Your task to perform on an android device: Open accessibility settings Image 0: 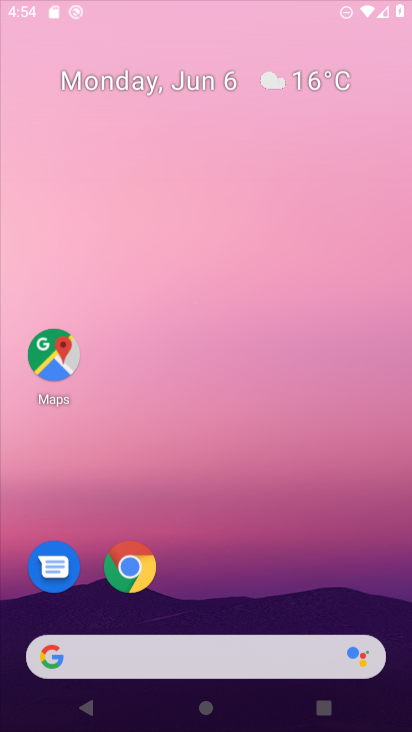
Step 0: drag from (211, 426) to (162, 197)
Your task to perform on an android device: Open accessibility settings Image 1: 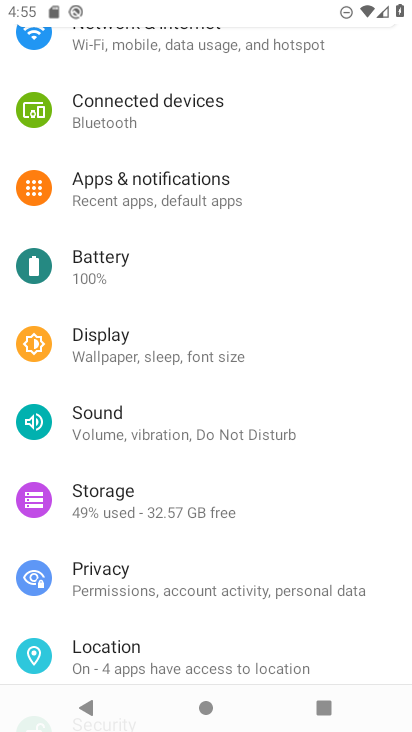
Step 1: drag from (163, 587) to (112, 101)
Your task to perform on an android device: Open accessibility settings Image 2: 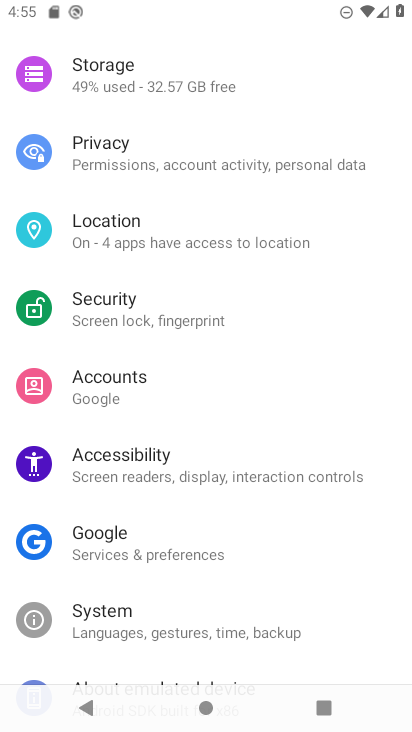
Step 2: drag from (171, 466) to (145, 52)
Your task to perform on an android device: Open accessibility settings Image 3: 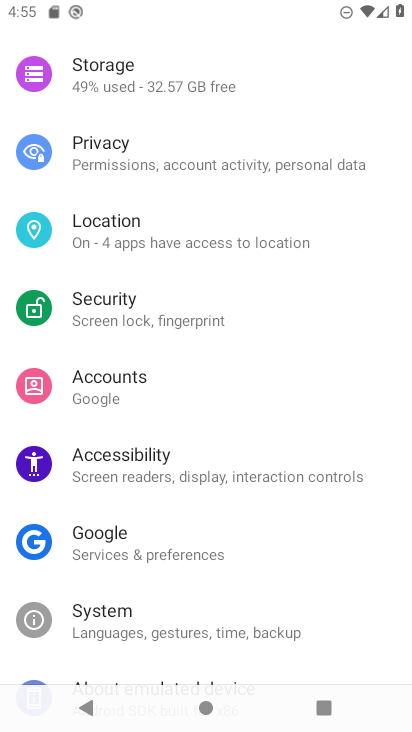
Step 3: click (189, 127)
Your task to perform on an android device: Open accessibility settings Image 4: 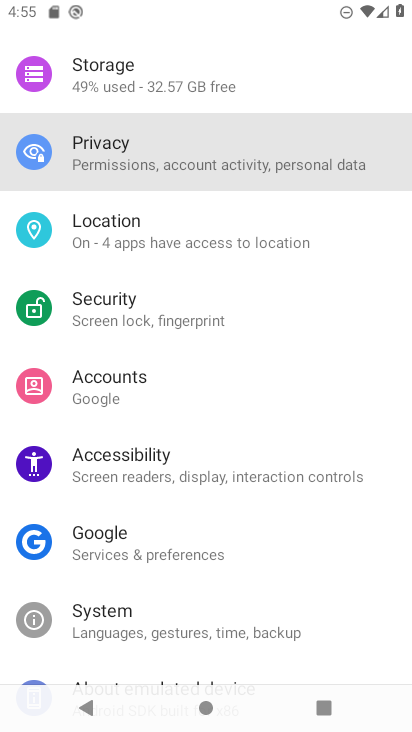
Step 4: click (137, 459)
Your task to perform on an android device: Open accessibility settings Image 5: 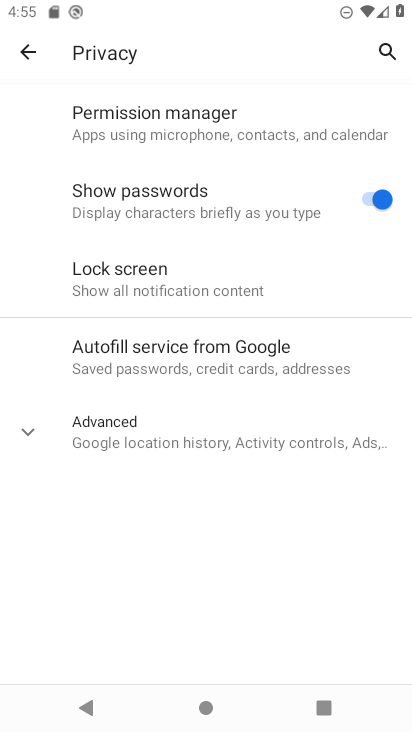
Step 5: click (22, 53)
Your task to perform on an android device: Open accessibility settings Image 6: 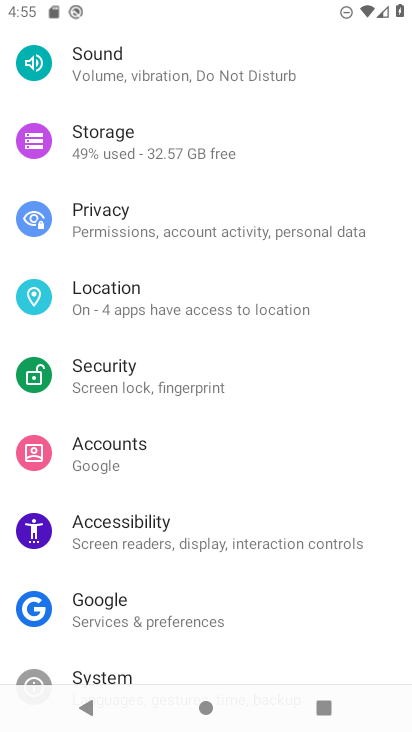
Step 6: click (132, 556)
Your task to perform on an android device: Open accessibility settings Image 7: 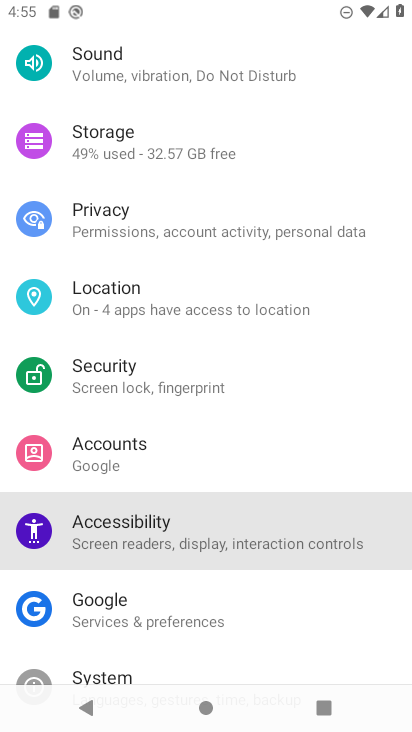
Step 7: click (143, 524)
Your task to perform on an android device: Open accessibility settings Image 8: 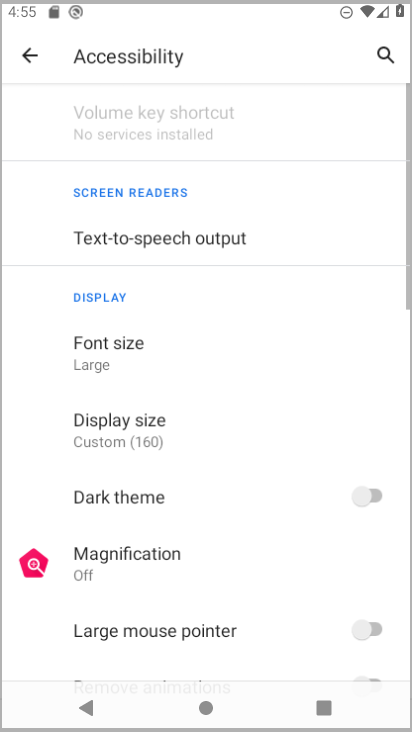
Step 8: click (149, 530)
Your task to perform on an android device: Open accessibility settings Image 9: 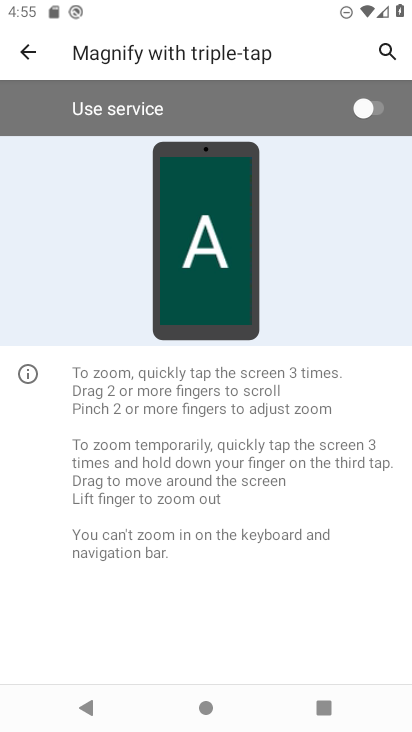
Step 9: task complete